Your task to perform on an android device: turn on data saver in the chrome app Image 0: 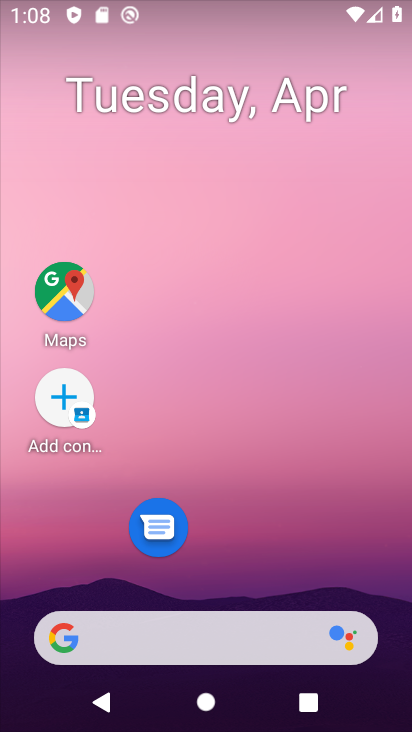
Step 0: drag from (246, 570) to (305, 42)
Your task to perform on an android device: turn on data saver in the chrome app Image 1: 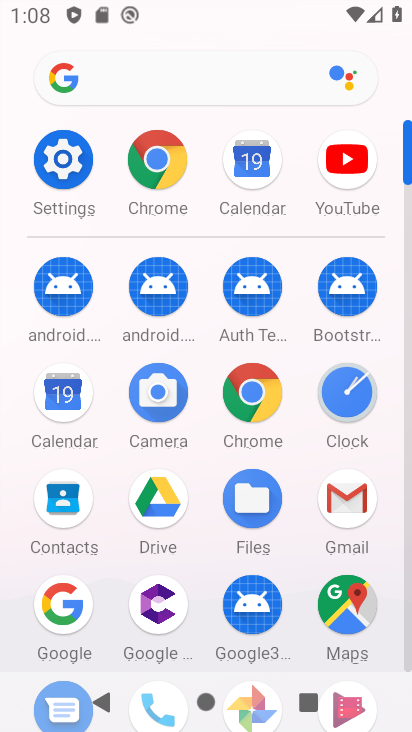
Step 1: click (157, 164)
Your task to perform on an android device: turn on data saver in the chrome app Image 2: 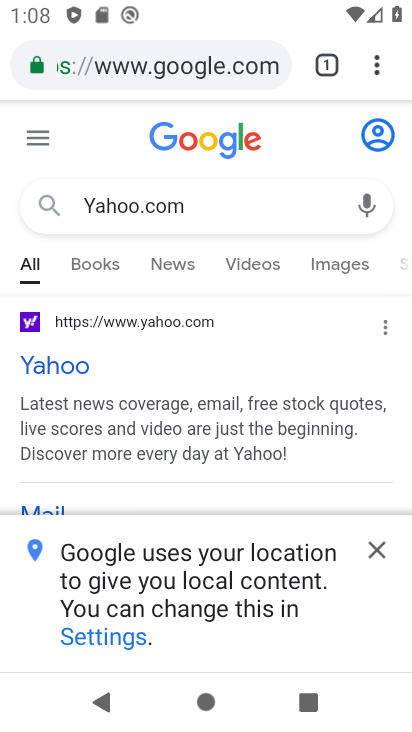
Step 2: click (383, 64)
Your task to perform on an android device: turn on data saver in the chrome app Image 3: 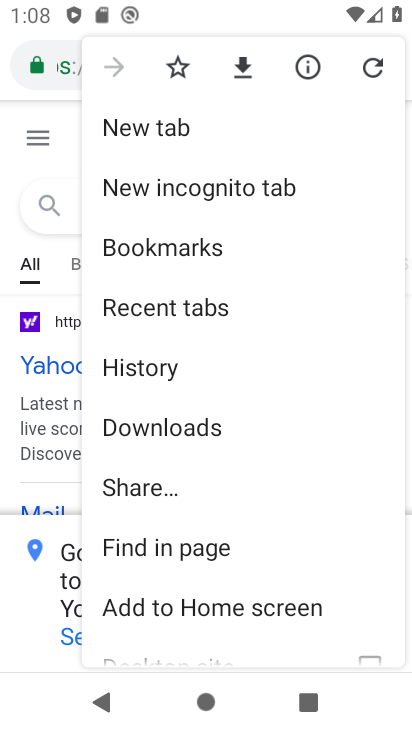
Step 3: drag from (210, 496) to (248, 397)
Your task to perform on an android device: turn on data saver in the chrome app Image 4: 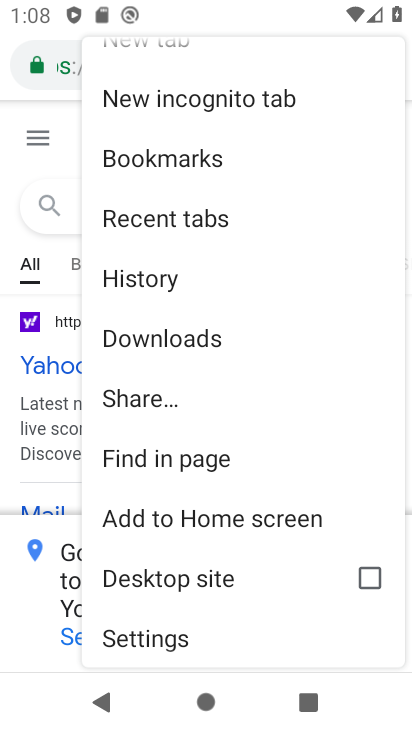
Step 4: drag from (225, 499) to (277, 402)
Your task to perform on an android device: turn on data saver in the chrome app Image 5: 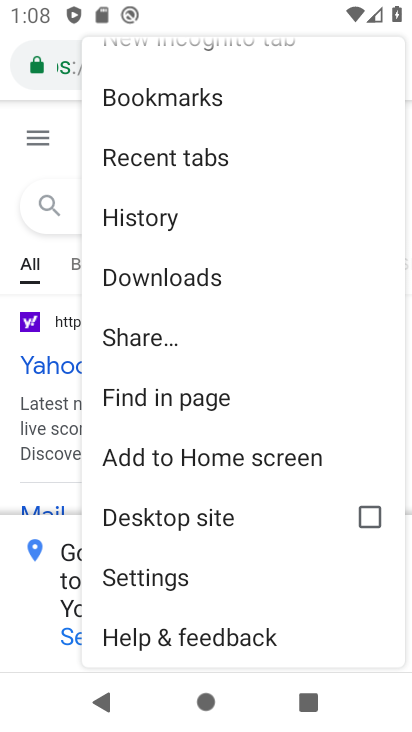
Step 5: click (160, 576)
Your task to perform on an android device: turn on data saver in the chrome app Image 6: 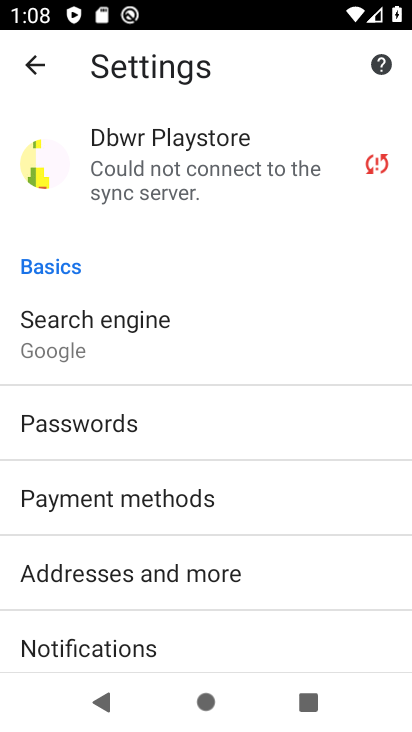
Step 6: drag from (180, 487) to (227, 357)
Your task to perform on an android device: turn on data saver in the chrome app Image 7: 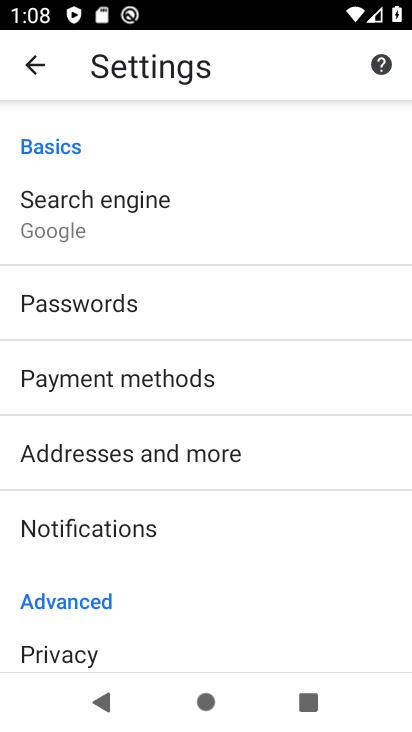
Step 7: drag from (190, 543) to (212, 456)
Your task to perform on an android device: turn on data saver in the chrome app Image 8: 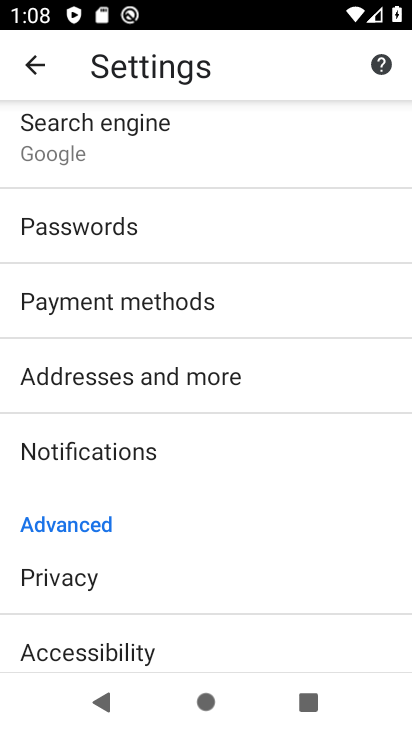
Step 8: drag from (162, 574) to (199, 483)
Your task to perform on an android device: turn on data saver in the chrome app Image 9: 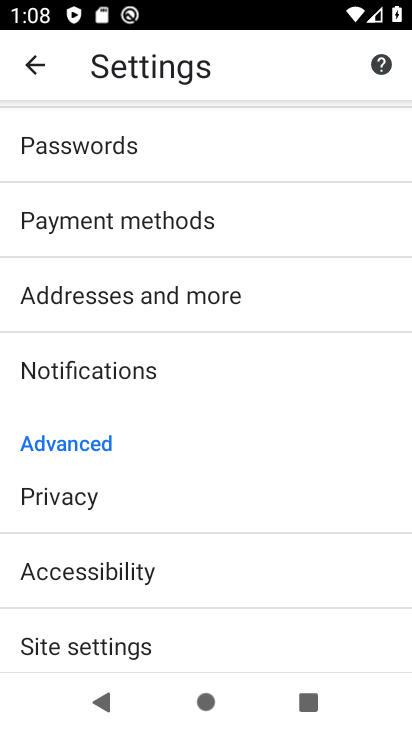
Step 9: drag from (182, 601) to (226, 500)
Your task to perform on an android device: turn on data saver in the chrome app Image 10: 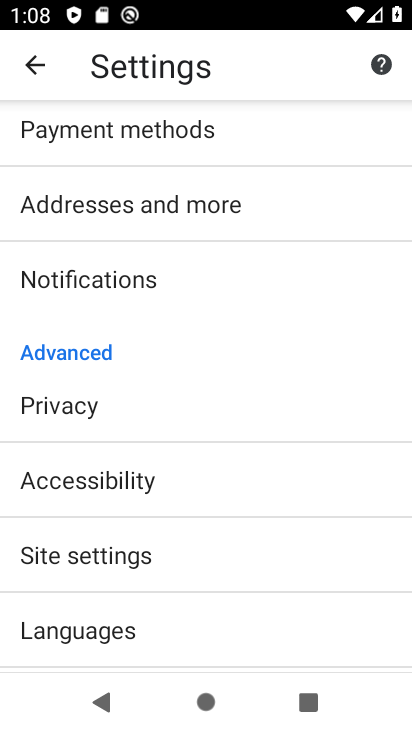
Step 10: drag from (190, 604) to (231, 504)
Your task to perform on an android device: turn on data saver in the chrome app Image 11: 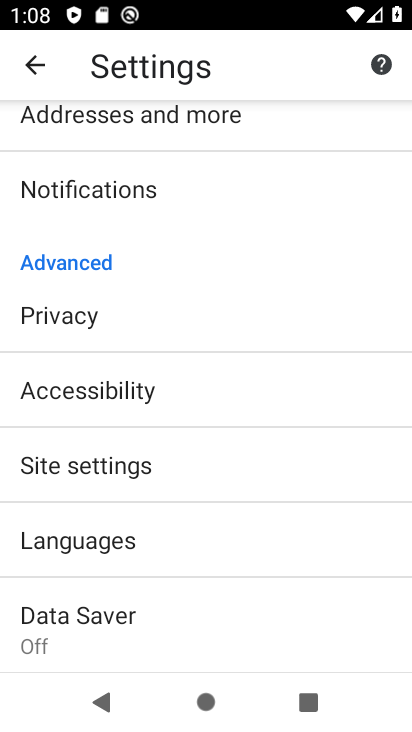
Step 11: click (127, 620)
Your task to perform on an android device: turn on data saver in the chrome app Image 12: 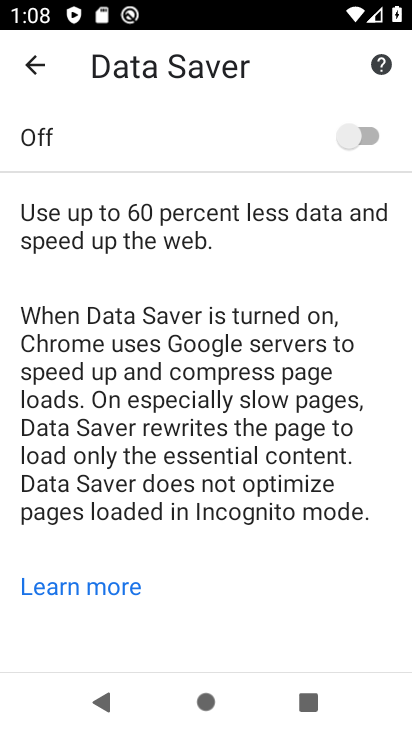
Step 12: click (355, 141)
Your task to perform on an android device: turn on data saver in the chrome app Image 13: 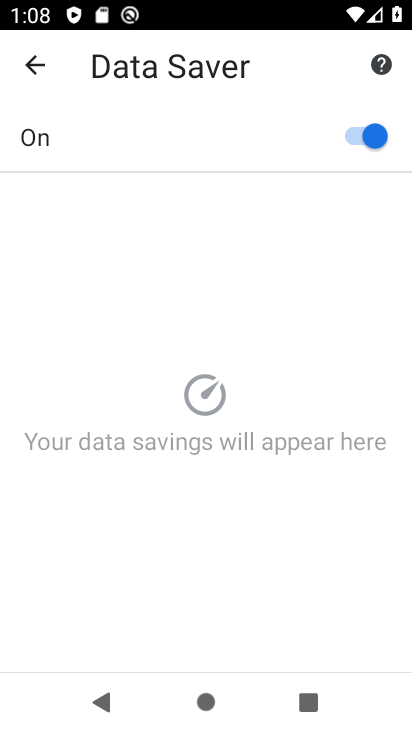
Step 13: task complete